Your task to perform on an android device: check the backup settings in the google photos Image 0: 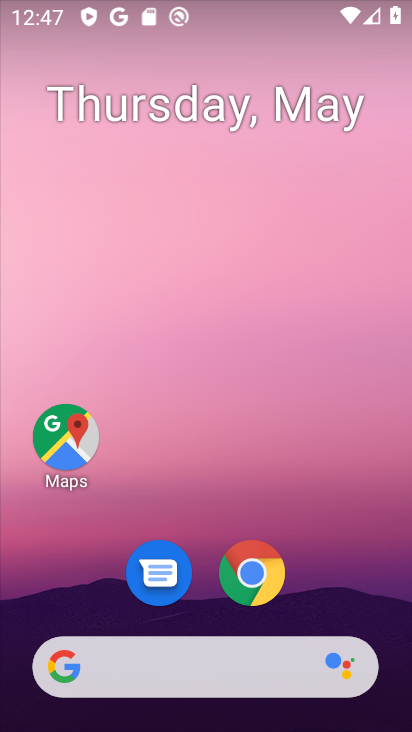
Step 0: drag from (313, 557) to (260, 1)
Your task to perform on an android device: check the backup settings in the google photos Image 1: 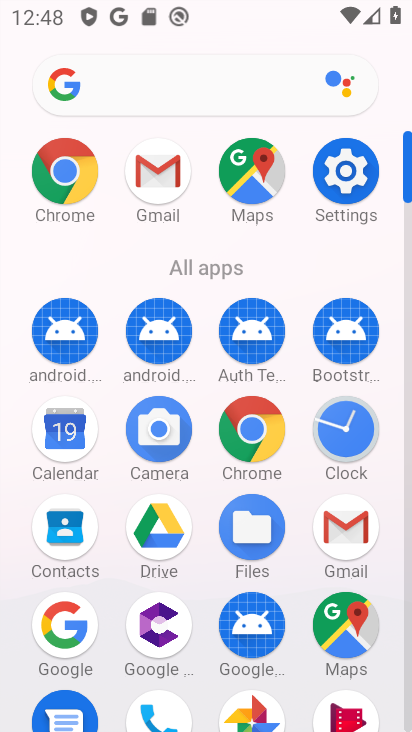
Step 1: click (252, 713)
Your task to perform on an android device: check the backup settings in the google photos Image 2: 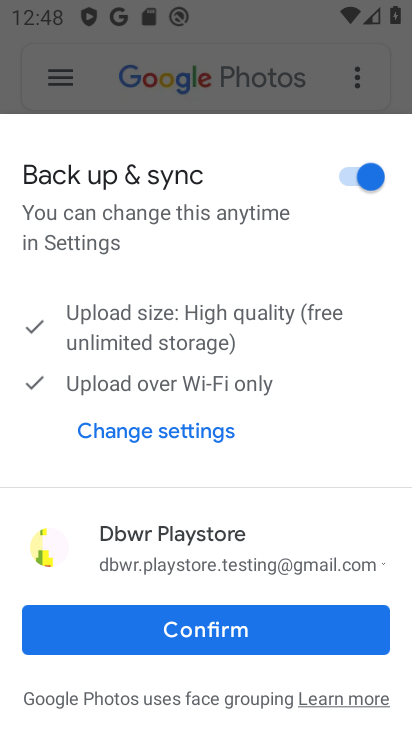
Step 2: click (193, 626)
Your task to perform on an android device: check the backup settings in the google photos Image 3: 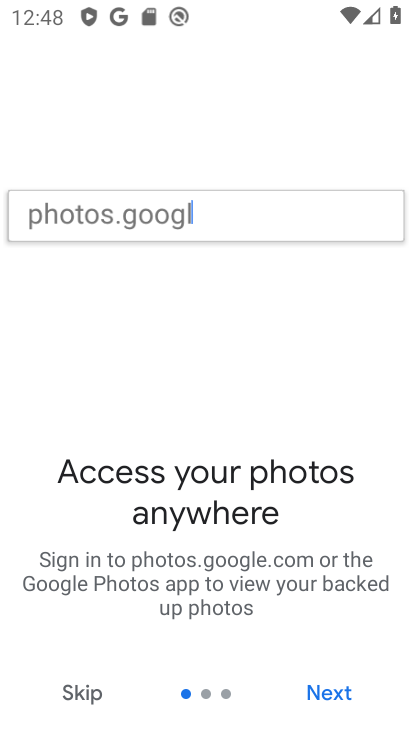
Step 3: click (331, 687)
Your task to perform on an android device: check the backup settings in the google photos Image 4: 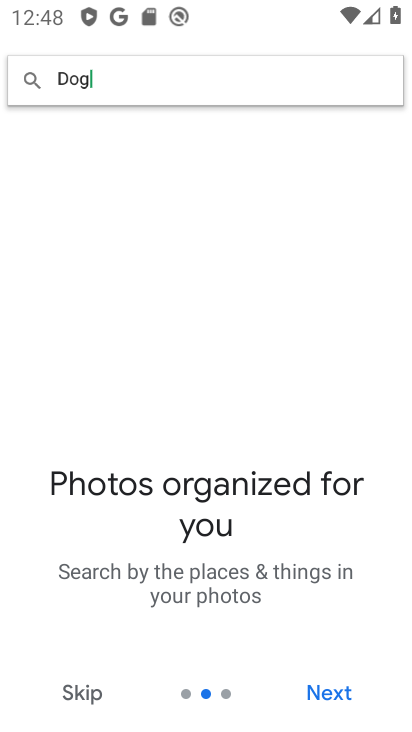
Step 4: click (332, 688)
Your task to perform on an android device: check the backup settings in the google photos Image 5: 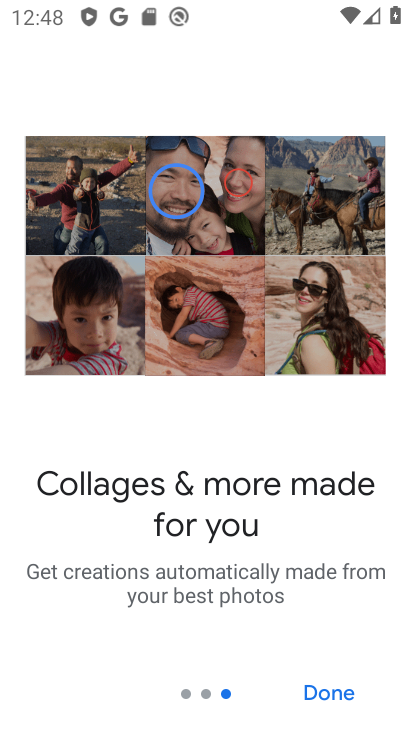
Step 5: click (332, 688)
Your task to perform on an android device: check the backup settings in the google photos Image 6: 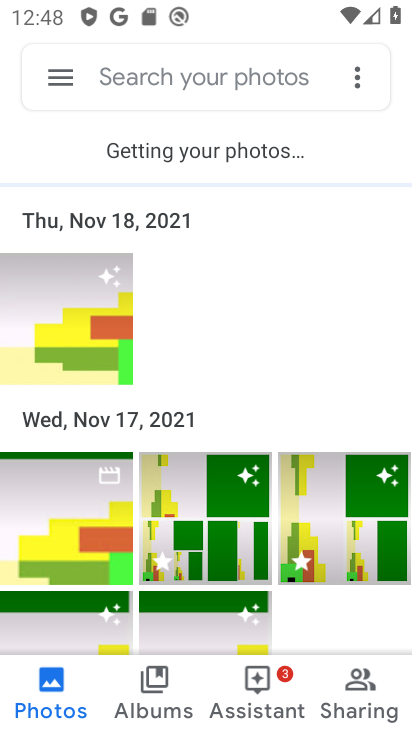
Step 6: click (258, 697)
Your task to perform on an android device: check the backup settings in the google photos Image 7: 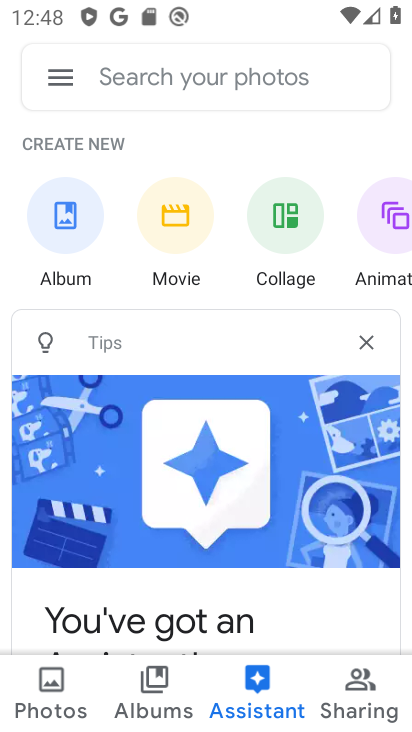
Step 7: click (56, 70)
Your task to perform on an android device: check the backup settings in the google photos Image 8: 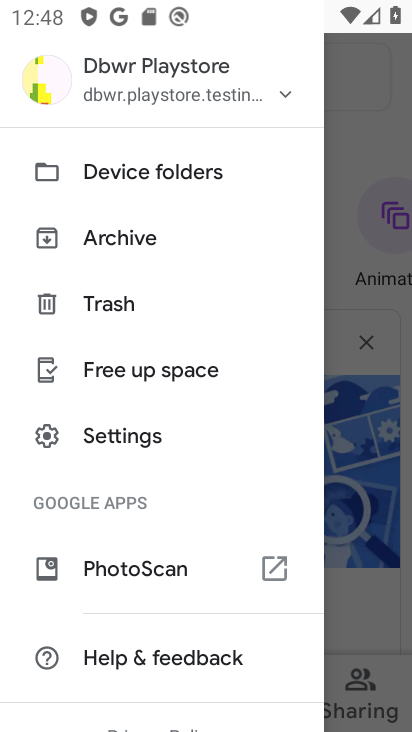
Step 8: click (138, 435)
Your task to perform on an android device: check the backup settings in the google photos Image 9: 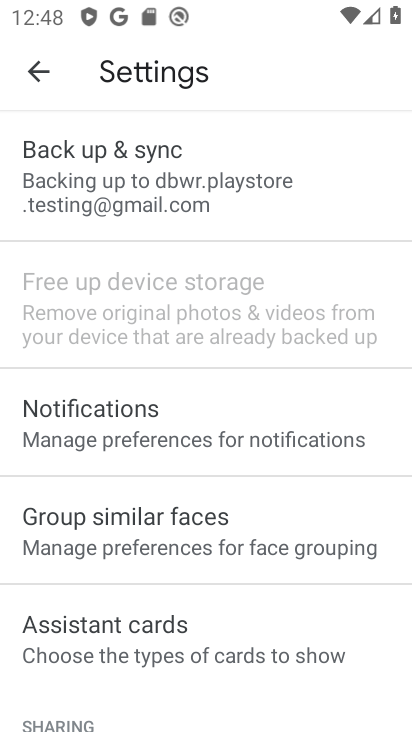
Step 9: drag from (335, 596) to (293, 134)
Your task to perform on an android device: check the backup settings in the google photos Image 10: 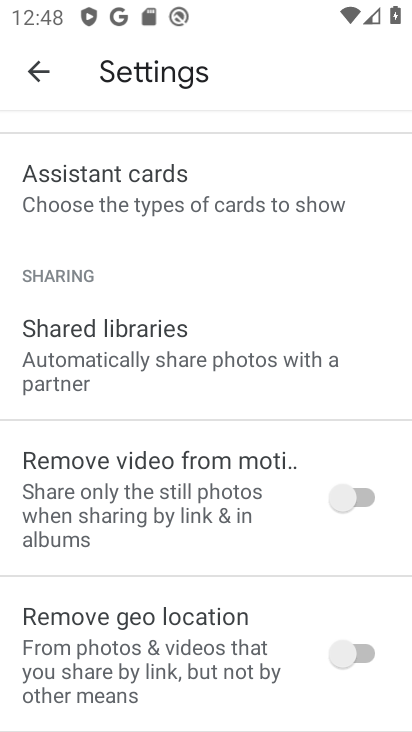
Step 10: drag from (200, 557) to (227, 207)
Your task to perform on an android device: check the backup settings in the google photos Image 11: 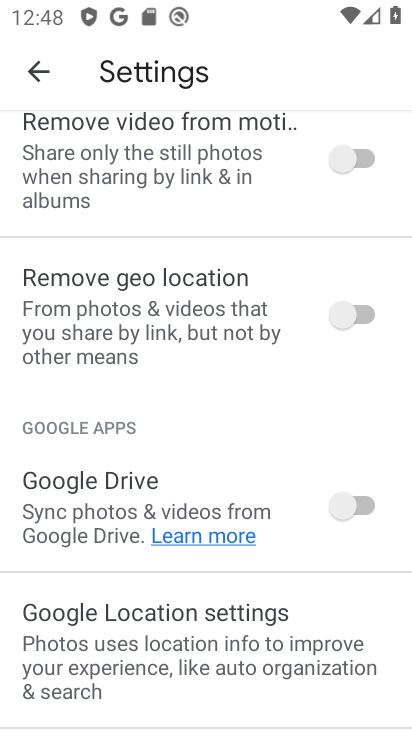
Step 11: drag from (109, 561) to (120, 156)
Your task to perform on an android device: check the backup settings in the google photos Image 12: 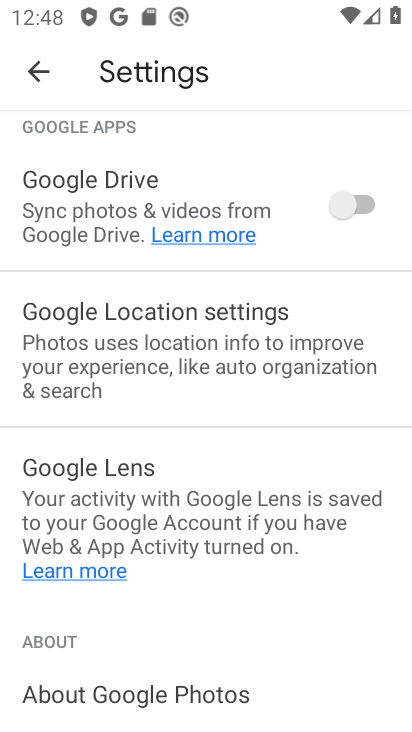
Step 12: drag from (78, 613) to (99, 177)
Your task to perform on an android device: check the backup settings in the google photos Image 13: 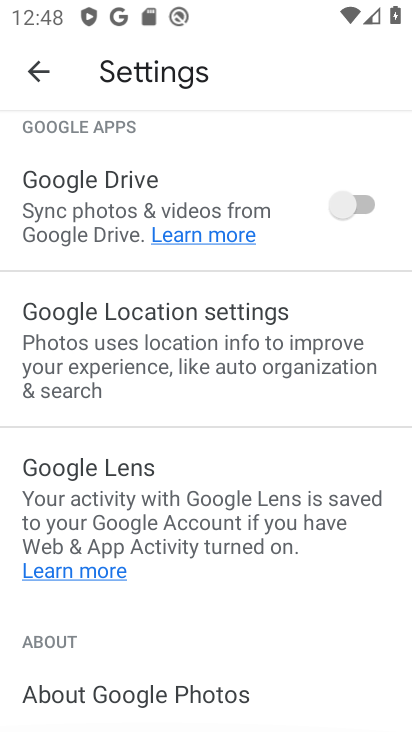
Step 13: drag from (122, 213) to (125, 633)
Your task to perform on an android device: check the backup settings in the google photos Image 14: 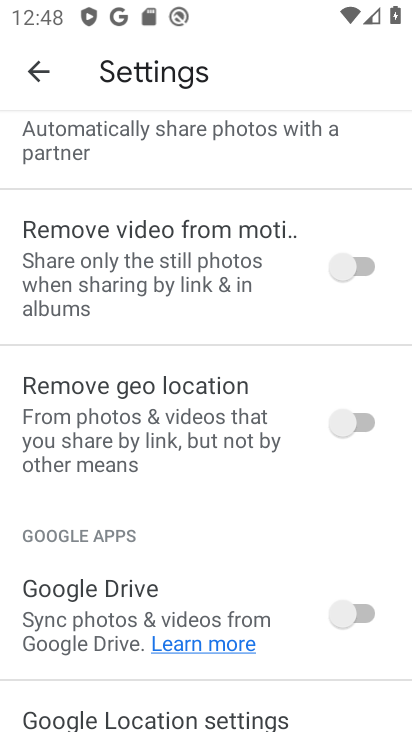
Step 14: drag from (123, 355) to (115, 658)
Your task to perform on an android device: check the backup settings in the google photos Image 15: 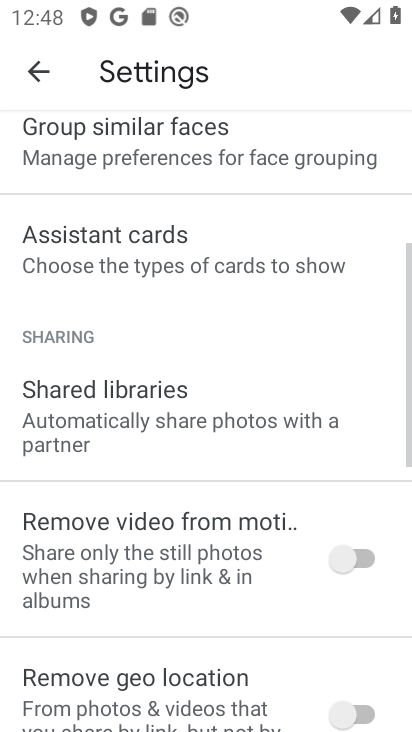
Step 15: drag from (126, 246) to (137, 606)
Your task to perform on an android device: check the backup settings in the google photos Image 16: 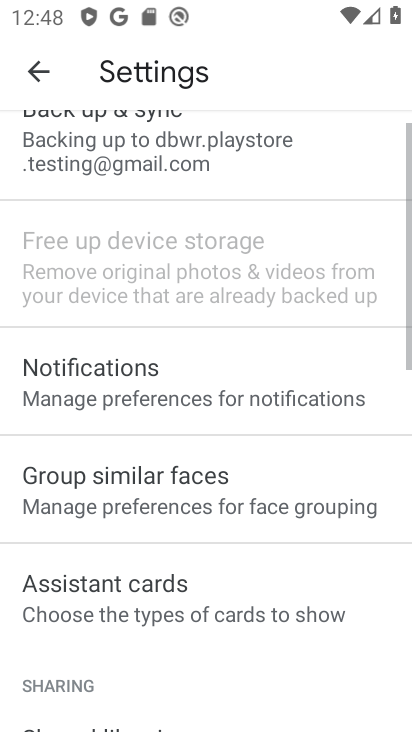
Step 16: drag from (177, 182) to (191, 606)
Your task to perform on an android device: check the backup settings in the google photos Image 17: 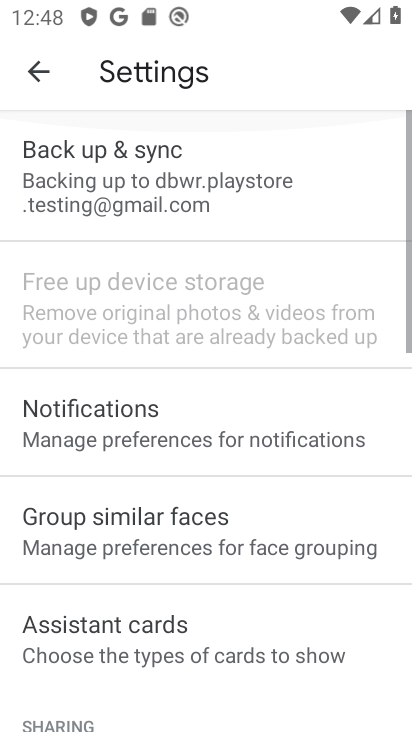
Step 17: click (196, 191)
Your task to perform on an android device: check the backup settings in the google photos Image 18: 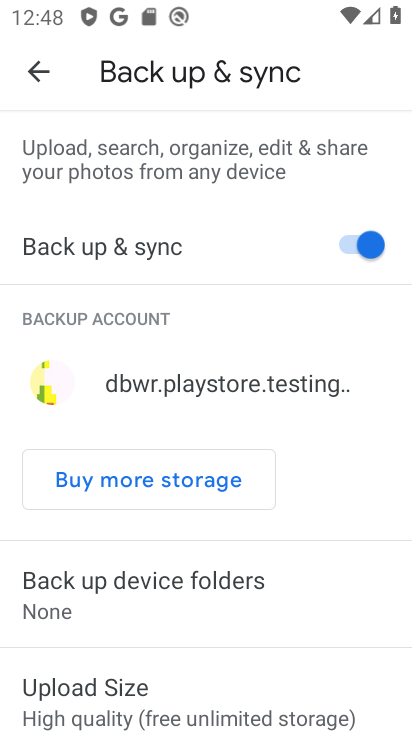
Step 18: click (44, 77)
Your task to perform on an android device: check the backup settings in the google photos Image 19: 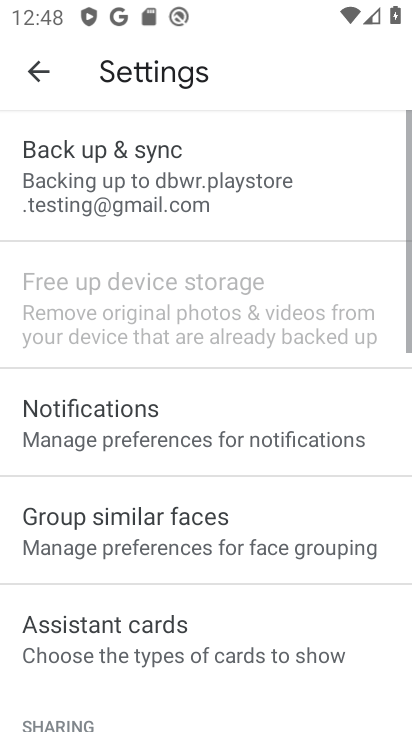
Step 19: click (44, 77)
Your task to perform on an android device: check the backup settings in the google photos Image 20: 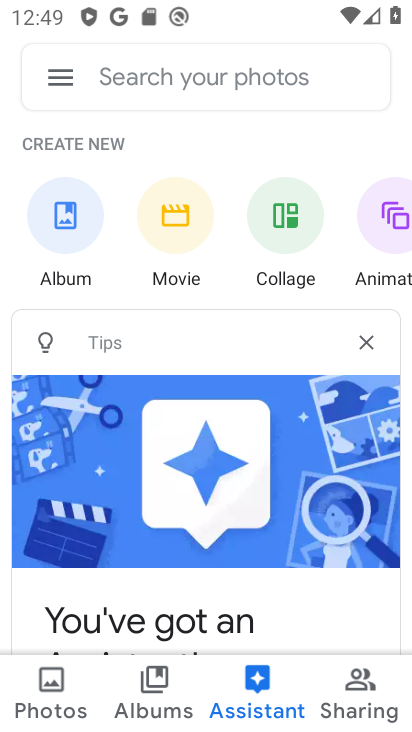
Step 20: click (43, 67)
Your task to perform on an android device: check the backup settings in the google photos Image 21: 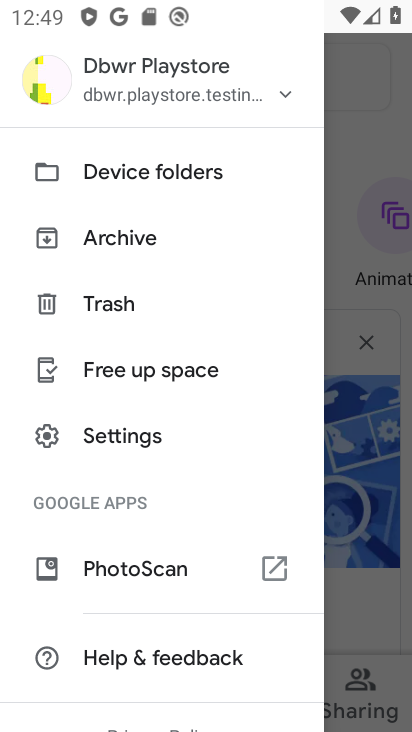
Step 21: click (159, 433)
Your task to perform on an android device: check the backup settings in the google photos Image 22: 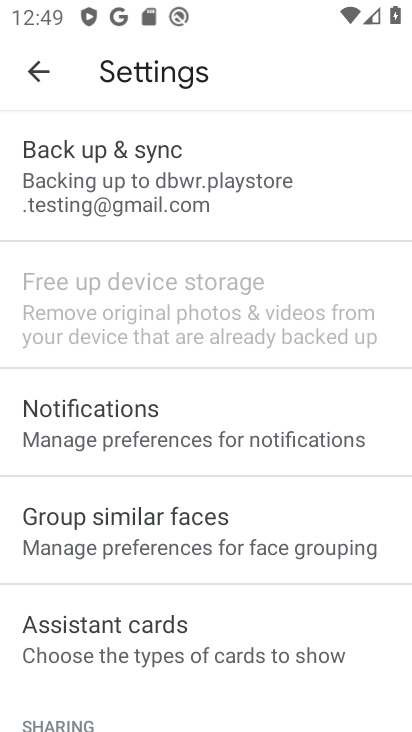
Step 22: drag from (223, 574) to (222, 192)
Your task to perform on an android device: check the backup settings in the google photos Image 23: 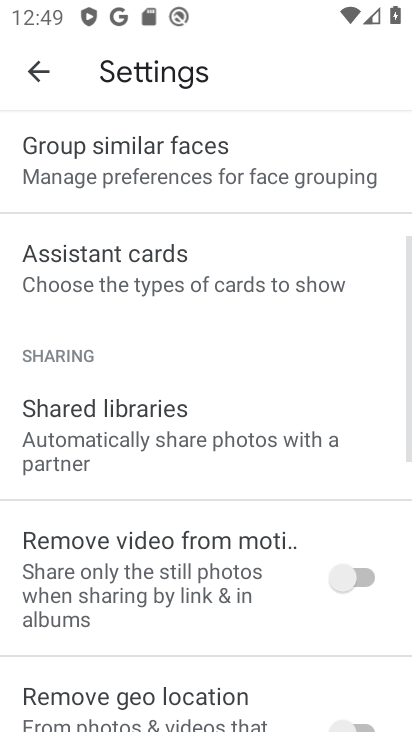
Step 23: drag from (226, 187) to (240, 610)
Your task to perform on an android device: check the backup settings in the google photos Image 24: 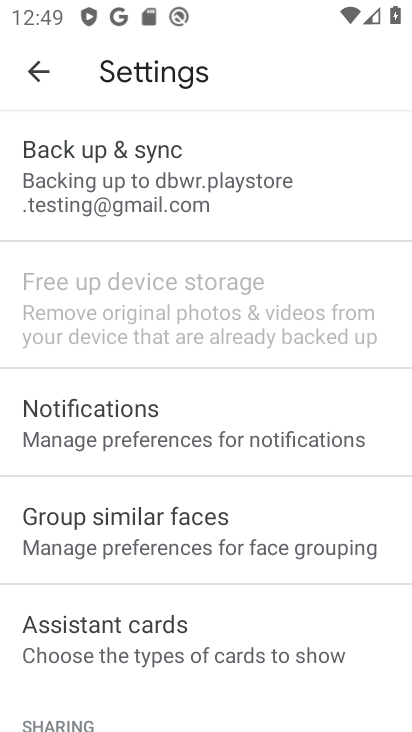
Step 24: click (215, 171)
Your task to perform on an android device: check the backup settings in the google photos Image 25: 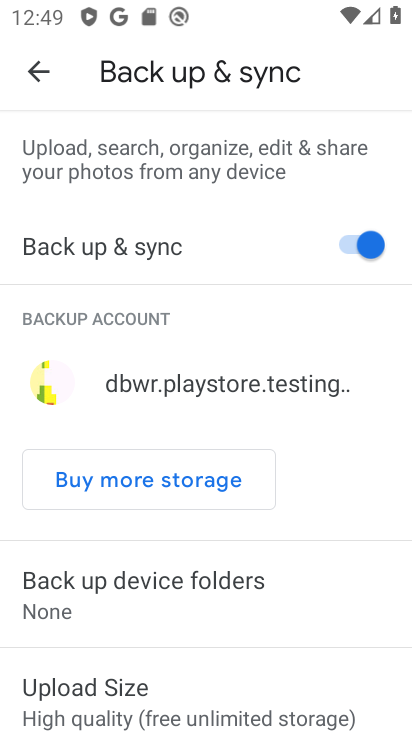
Step 25: task complete